Your task to perform on an android device: Open CNN.com Image 0: 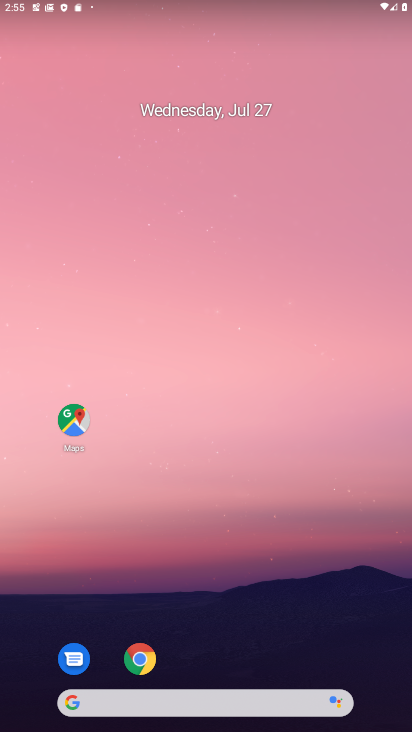
Step 0: press home button
Your task to perform on an android device: Open CNN.com Image 1: 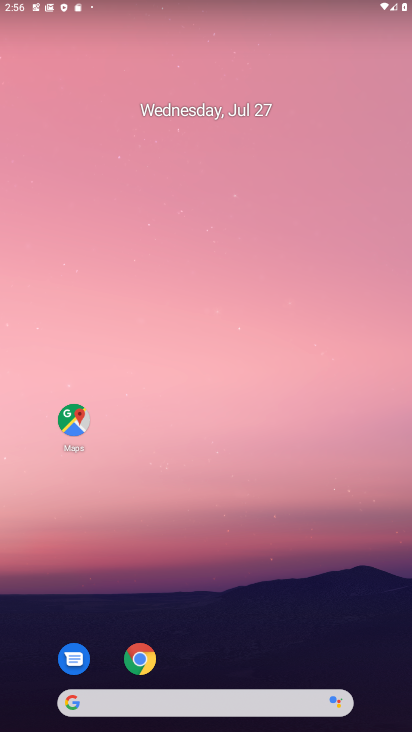
Step 1: drag from (218, 675) to (176, 298)
Your task to perform on an android device: Open CNN.com Image 2: 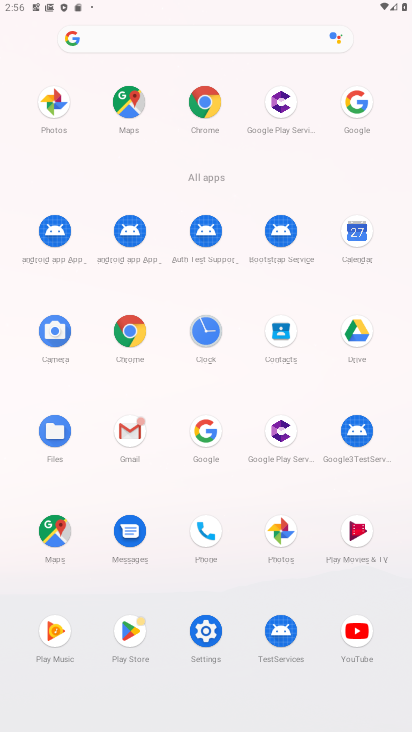
Step 2: click (354, 102)
Your task to perform on an android device: Open CNN.com Image 3: 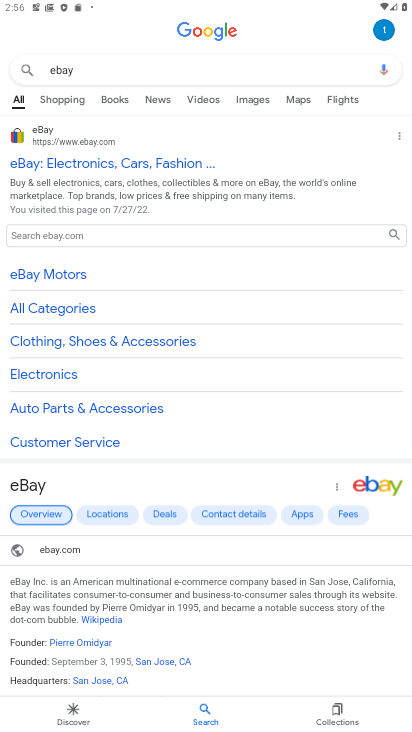
Step 3: click (119, 70)
Your task to perform on an android device: Open CNN.com Image 4: 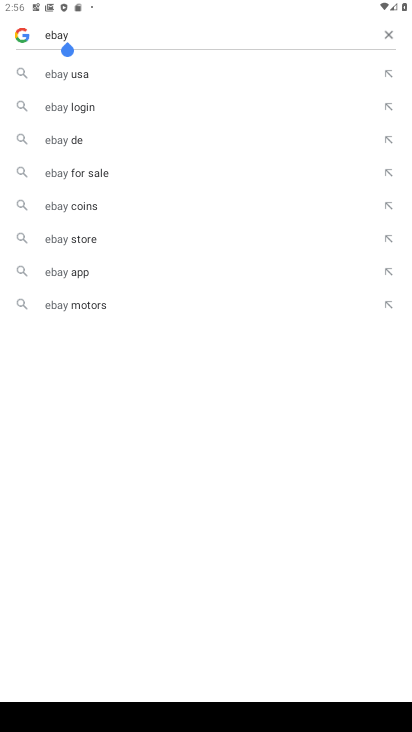
Step 4: click (387, 33)
Your task to perform on an android device: Open CNN.com Image 5: 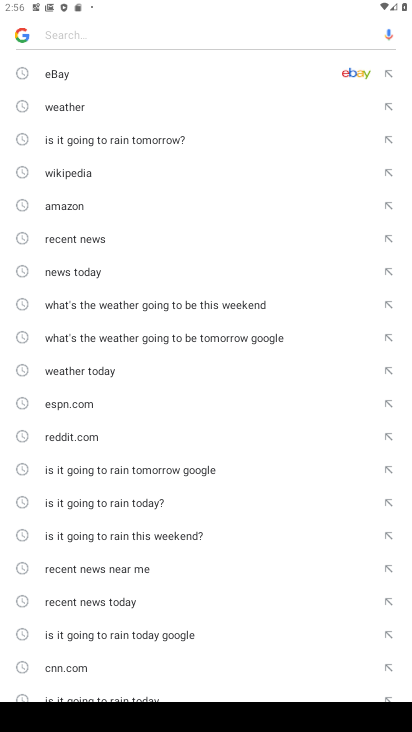
Step 5: click (80, 667)
Your task to perform on an android device: Open CNN.com Image 6: 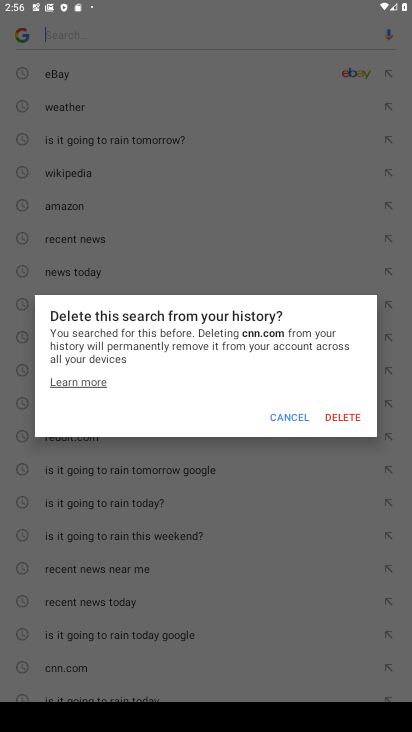
Step 6: click (291, 417)
Your task to perform on an android device: Open CNN.com Image 7: 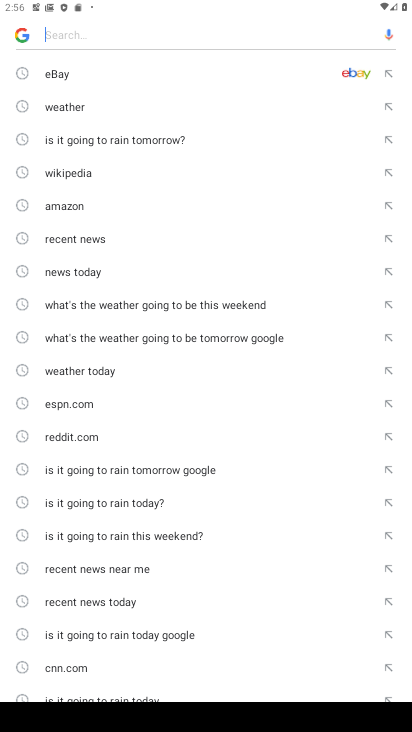
Step 7: click (61, 665)
Your task to perform on an android device: Open CNN.com Image 8: 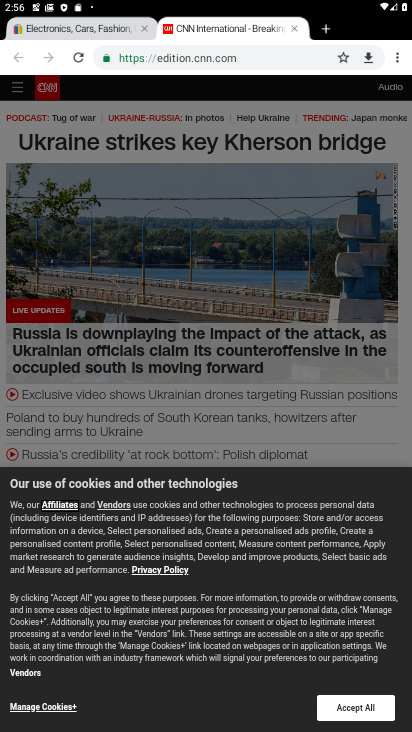
Step 8: task complete